Your task to perform on an android device: Go to notification settings Image 0: 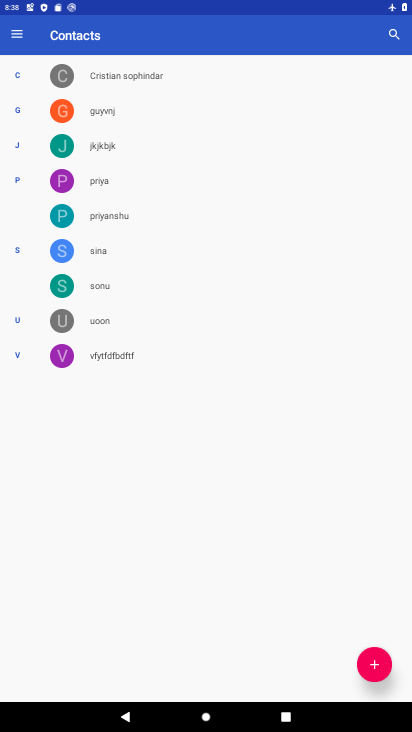
Step 0: press home button
Your task to perform on an android device: Go to notification settings Image 1: 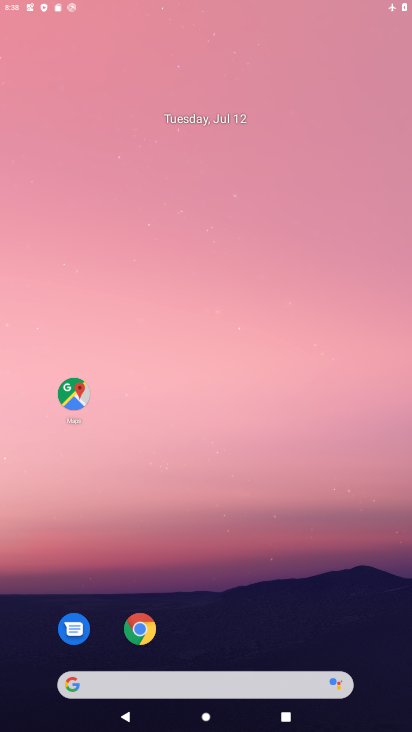
Step 1: drag from (192, 605) to (199, 255)
Your task to perform on an android device: Go to notification settings Image 2: 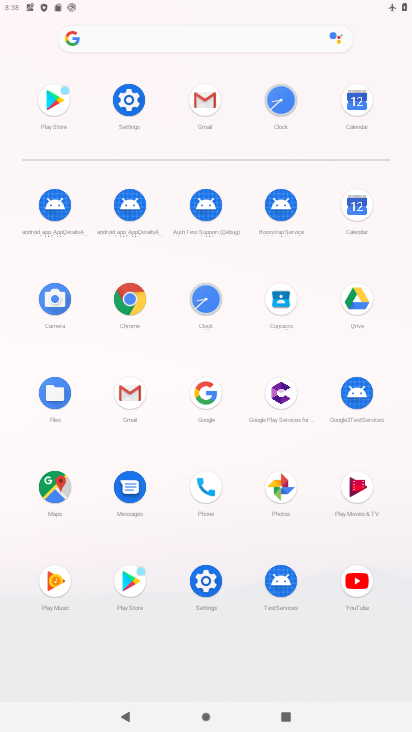
Step 2: click (121, 84)
Your task to perform on an android device: Go to notification settings Image 3: 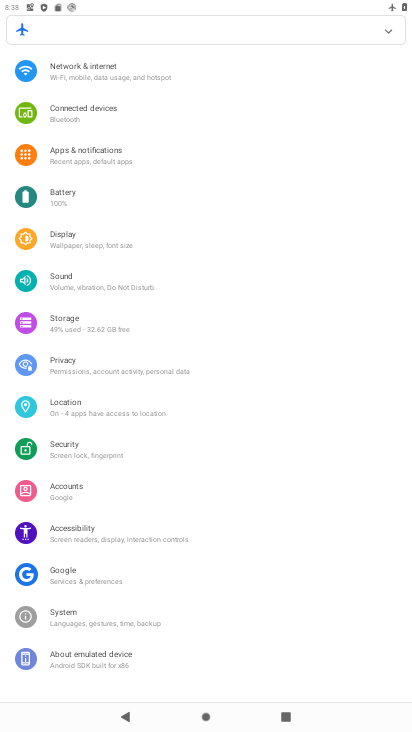
Step 3: click (113, 145)
Your task to perform on an android device: Go to notification settings Image 4: 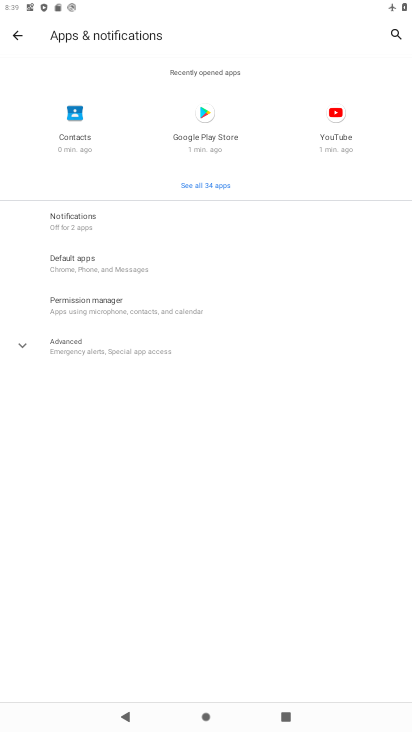
Step 4: click (147, 230)
Your task to perform on an android device: Go to notification settings Image 5: 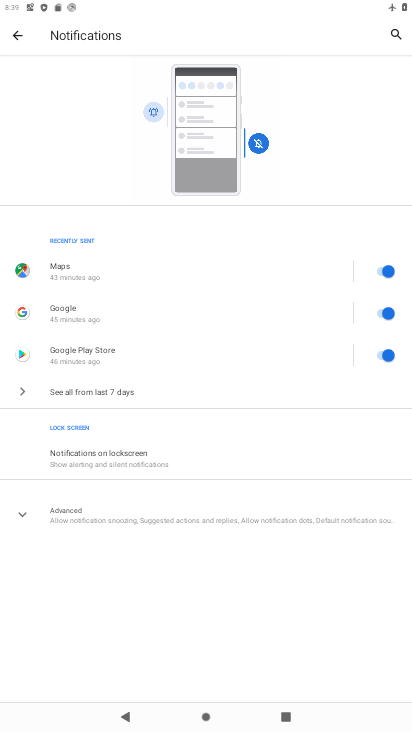
Step 5: task complete